Your task to perform on an android device: Show me recent news Image 0: 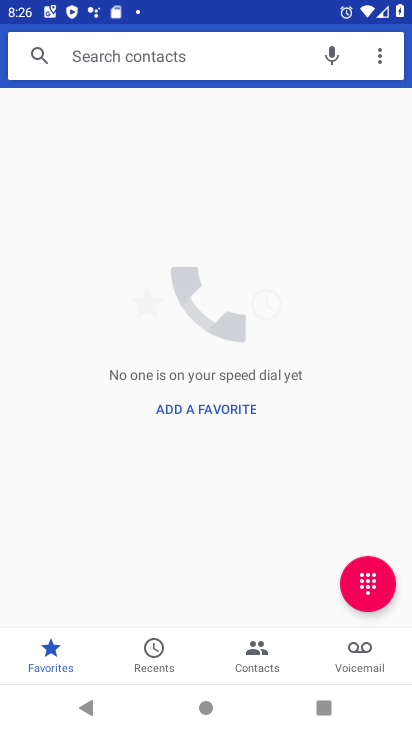
Step 0: press back button
Your task to perform on an android device: Show me recent news Image 1: 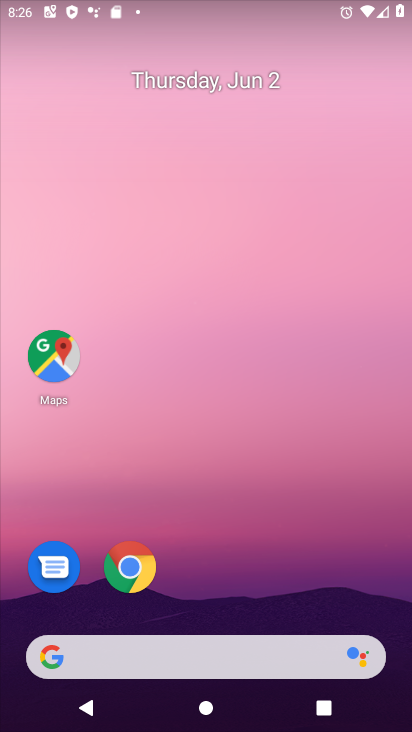
Step 1: drag from (218, 571) to (238, 235)
Your task to perform on an android device: Show me recent news Image 2: 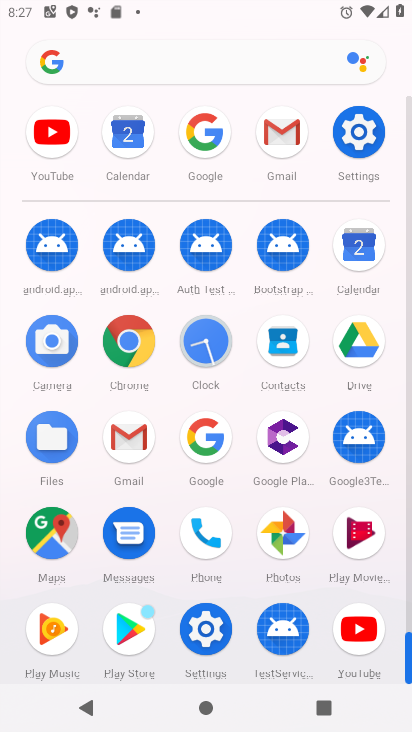
Step 2: click (201, 435)
Your task to perform on an android device: Show me recent news Image 3: 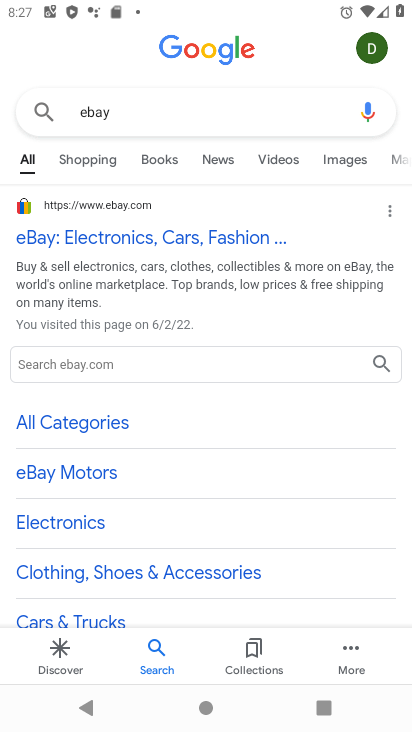
Step 3: click (133, 109)
Your task to perform on an android device: Show me recent news Image 4: 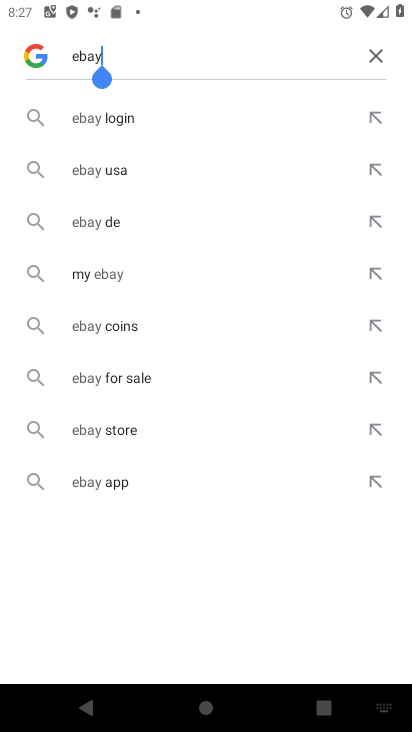
Step 4: click (368, 56)
Your task to perform on an android device: Show me recent news Image 5: 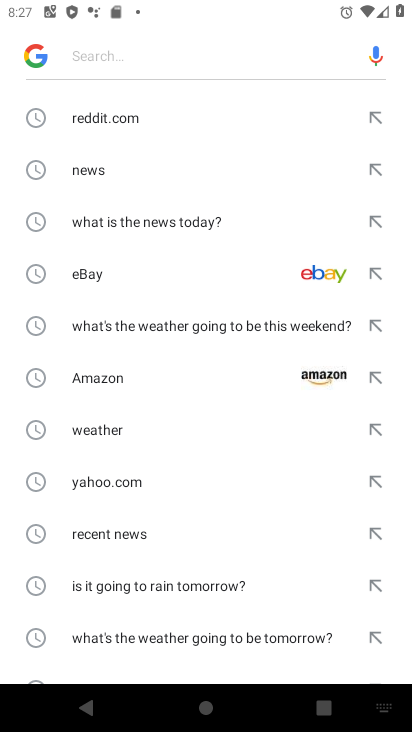
Step 5: type "recent news"
Your task to perform on an android device: Show me recent news Image 6: 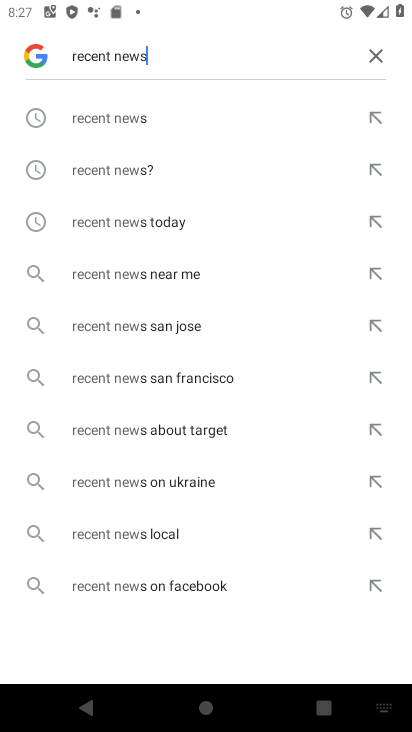
Step 6: type ""
Your task to perform on an android device: Show me recent news Image 7: 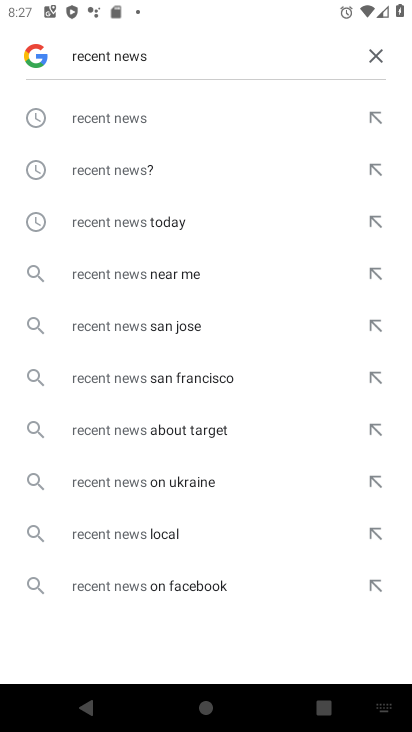
Step 7: click (122, 123)
Your task to perform on an android device: Show me recent news Image 8: 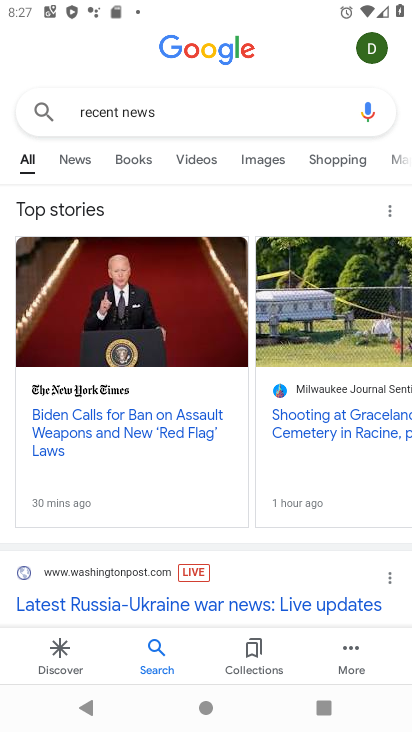
Step 8: click (148, 419)
Your task to perform on an android device: Show me recent news Image 9: 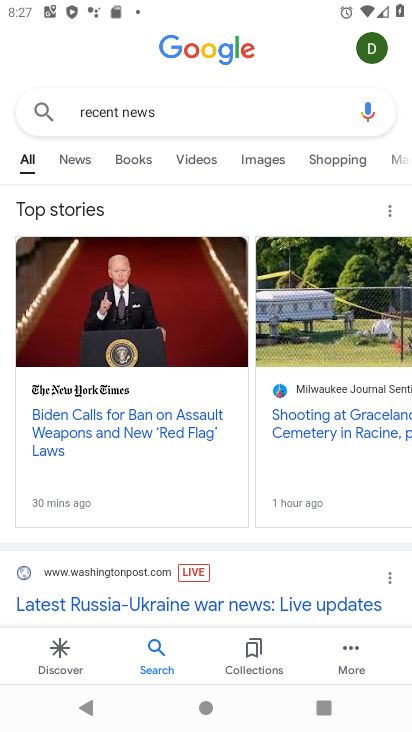
Step 9: task complete